Your task to perform on an android device: Open Amazon Image 0: 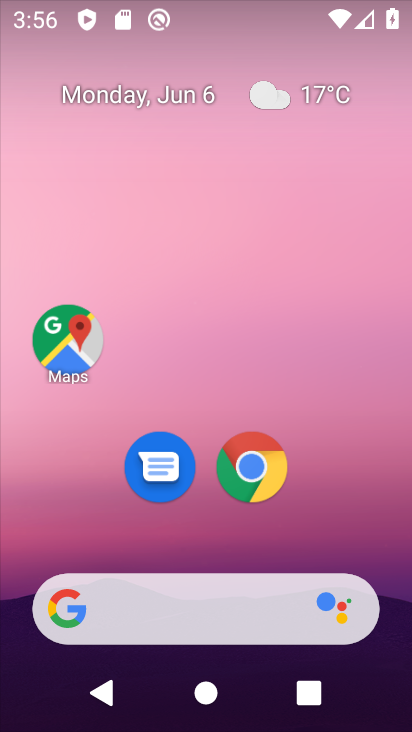
Step 0: click (254, 468)
Your task to perform on an android device: Open Amazon Image 1: 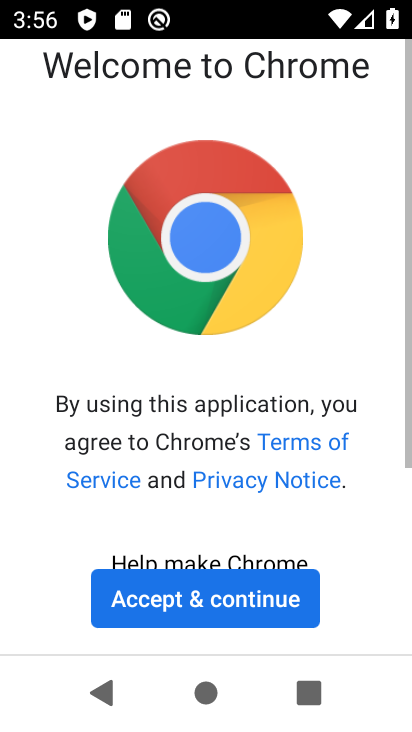
Step 1: click (290, 607)
Your task to perform on an android device: Open Amazon Image 2: 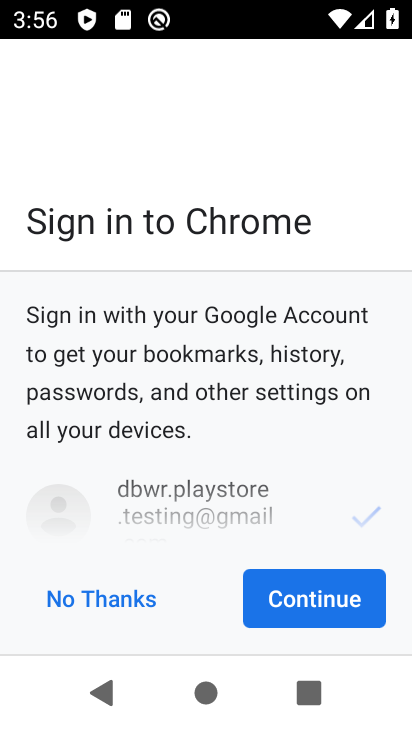
Step 2: click (290, 607)
Your task to perform on an android device: Open Amazon Image 3: 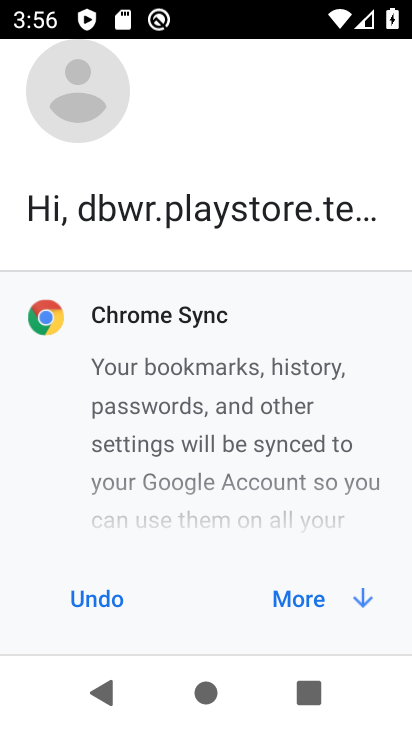
Step 3: click (290, 607)
Your task to perform on an android device: Open Amazon Image 4: 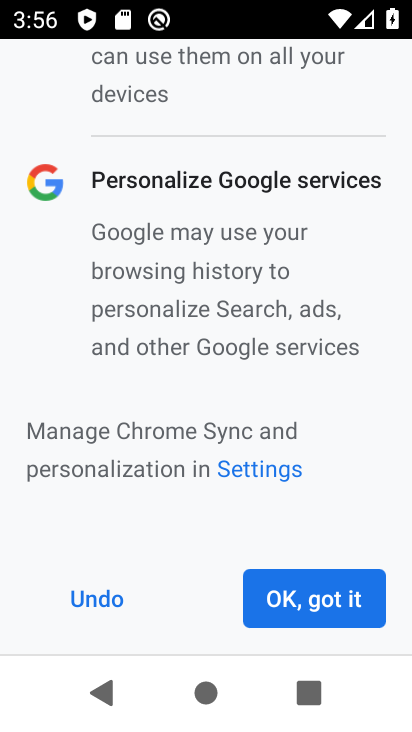
Step 4: click (290, 607)
Your task to perform on an android device: Open Amazon Image 5: 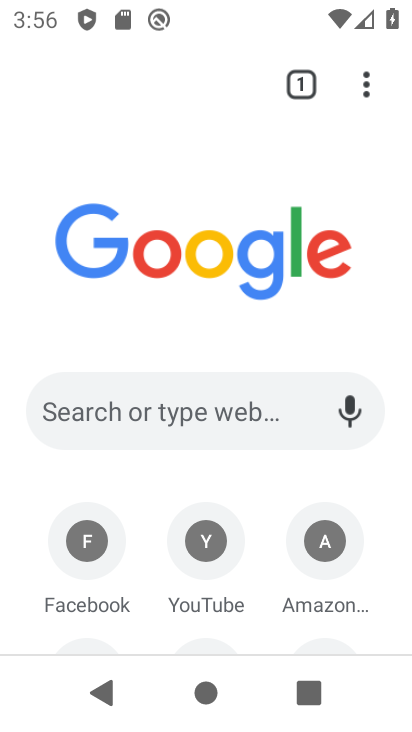
Step 5: drag from (246, 613) to (295, 444)
Your task to perform on an android device: Open Amazon Image 6: 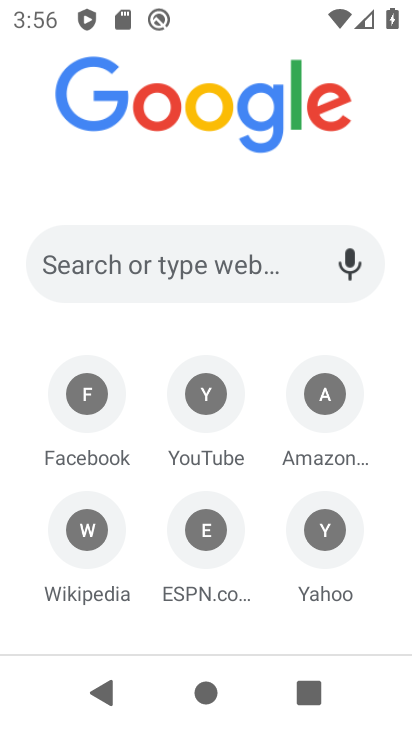
Step 6: click (327, 430)
Your task to perform on an android device: Open Amazon Image 7: 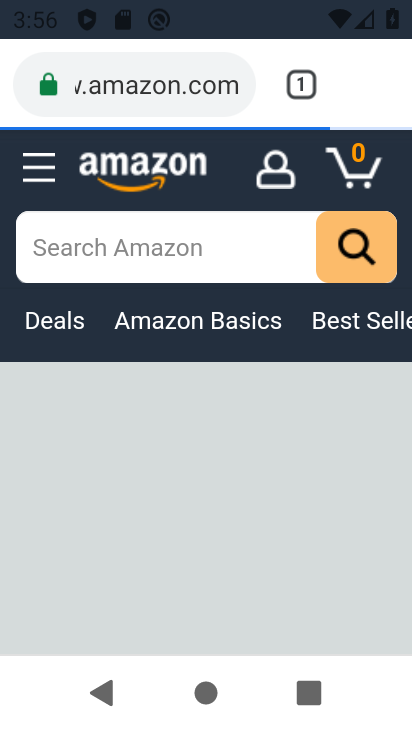
Step 7: task complete